Your task to perform on an android device: Open battery settings Image 0: 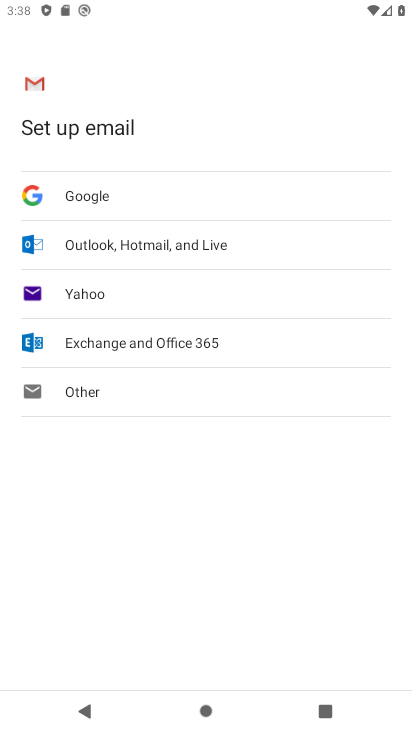
Step 0: press home button
Your task to perform on an android device: Open battery settings Image 1: 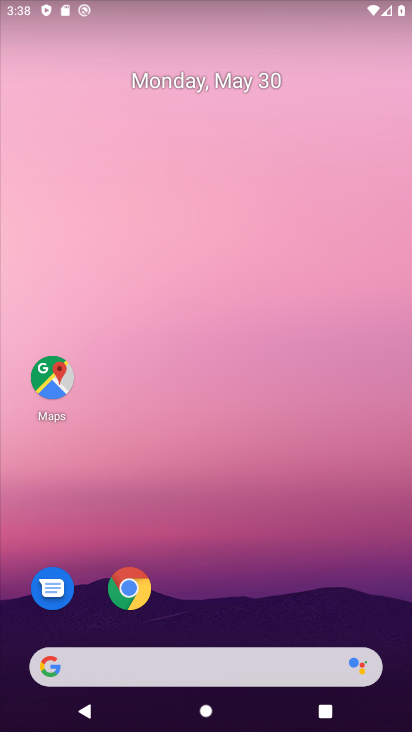
Step 1: drag from (372, 616) to (290, 50)
Your task to perform on an android device: Open battery settings Image 2: 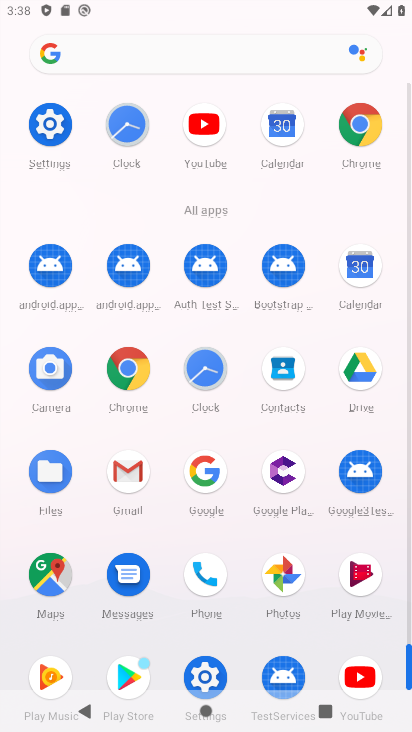
Step 2: click (207, 671)
Your task to perform on an android device: Open battery settings Image 3: 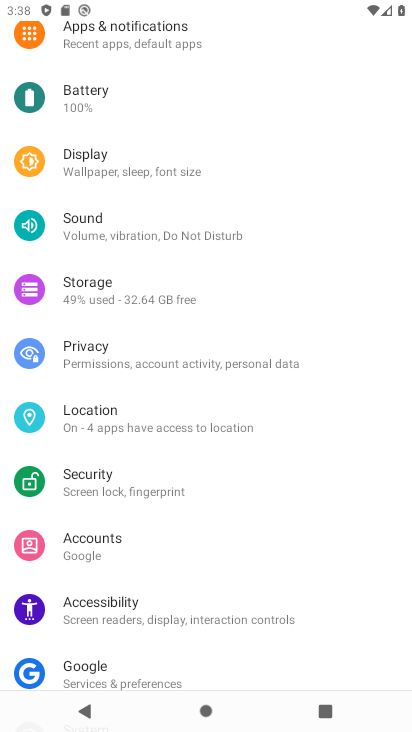
Step 3: click (94, 96)
Your task to perform on an android device: Open battery settings Image 4: 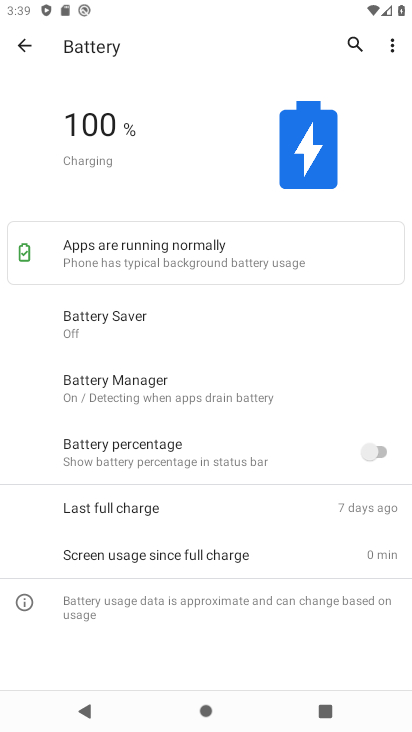
Step 4: task complete